Your task to perform on an android device: turn off sleep mode Image 0: 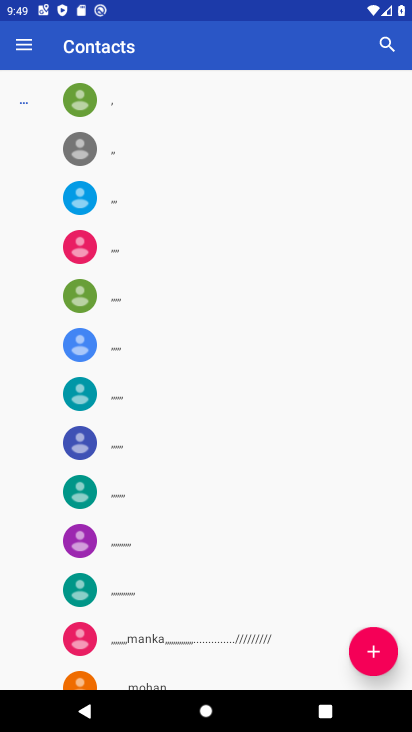
Step 0: press home button
Your task to perform on an android device: turn off sleep mode Image 1: 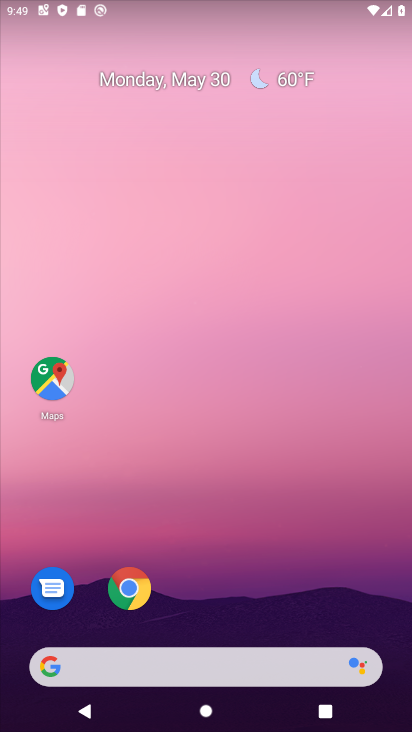
Step 1: drag from (235, 618) to (321, 126)
Your task to perform on an android device: turn off sleep mode Image 2: 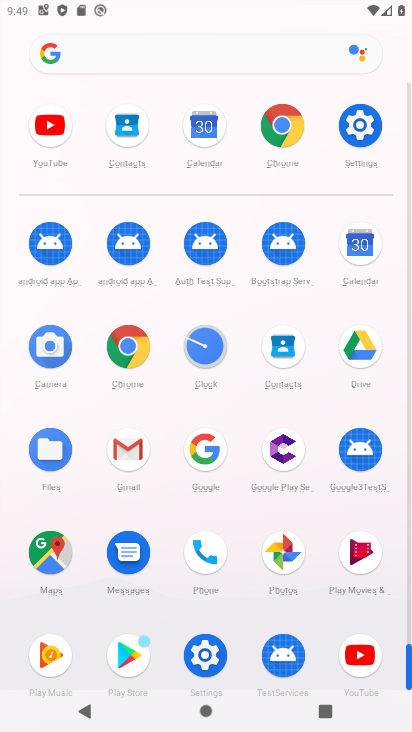
Step 2: click (201, 649)
Your task to perform on an android device: turn off sleep mode Image 3: 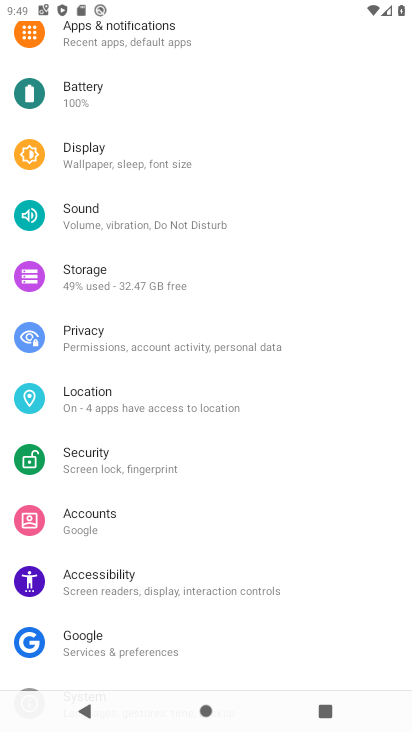
Step 3: drag from (239, 230) to (240, 319)
Your task to perform on an android device: turn off sleep mode Image 4: 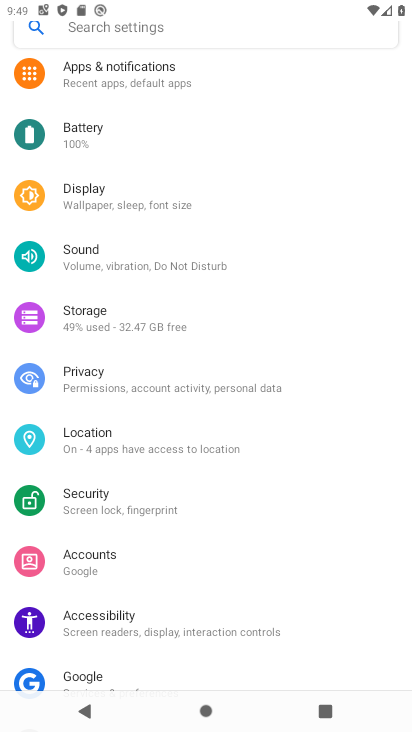
Step 4: click (171, 29)
Your task to perform on an android device: turn off sleep mode Image 5: 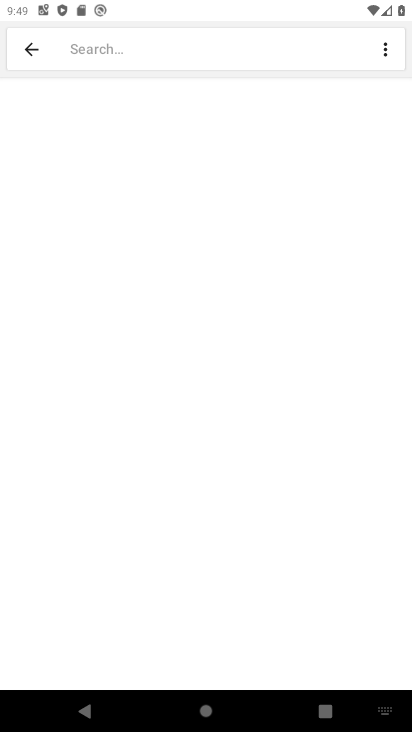
Step 5: type "sleep mode"
Your task to perform on an android device: turn off sleep mode Image 6: 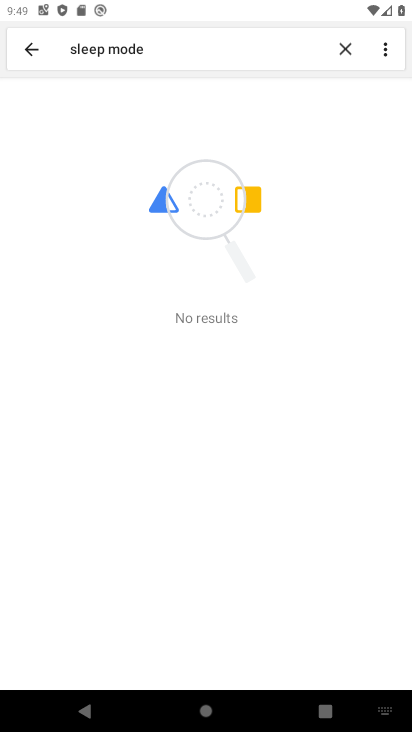
Step 6: click (159, 150)
Your task to perform on an android device: turn off sleep mode Image 7: 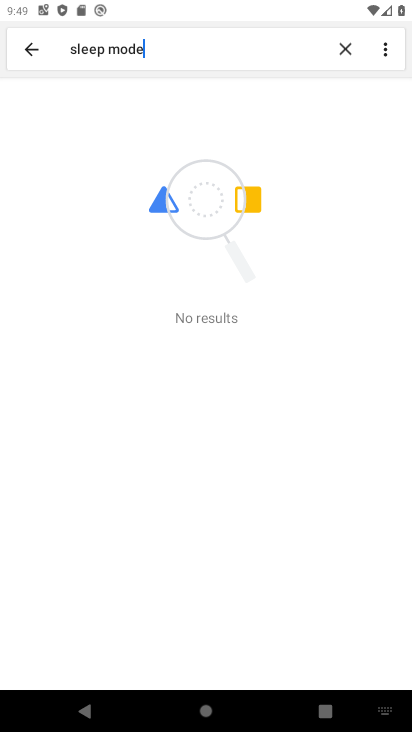
Step 7: task complete